Your task to perform on an android device: Look up the best rated headphones on Aliexpress Image 0: 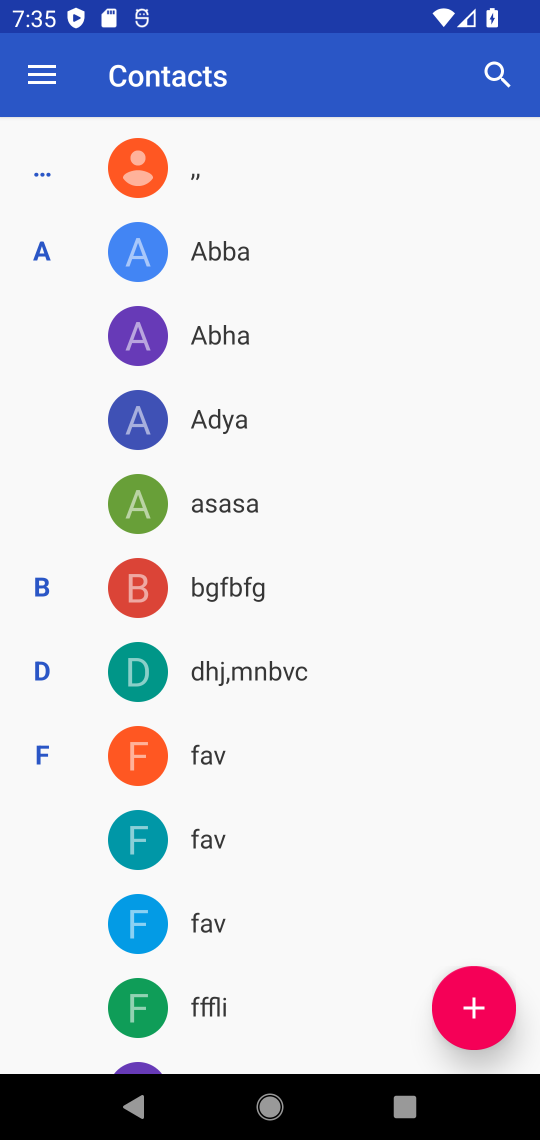
Step 0: press home button
Your task to perform on an android device: Look up the best rated headphones on Aliexpress Image 1: 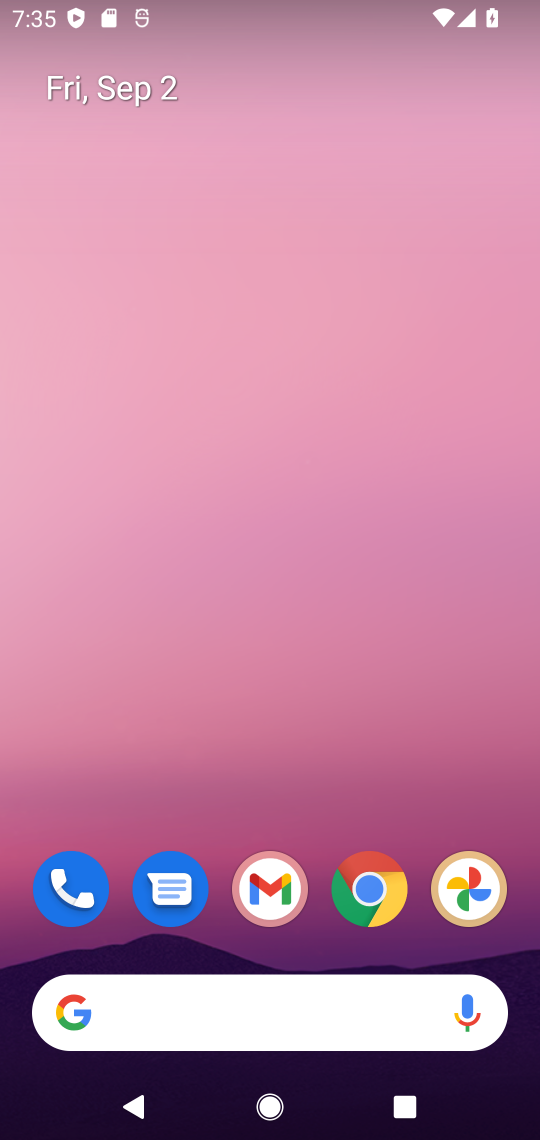
Step 1: click (279, 981)
Your task to perform on an android device: Look up the best rated headphones on Aliexpress Image 2: 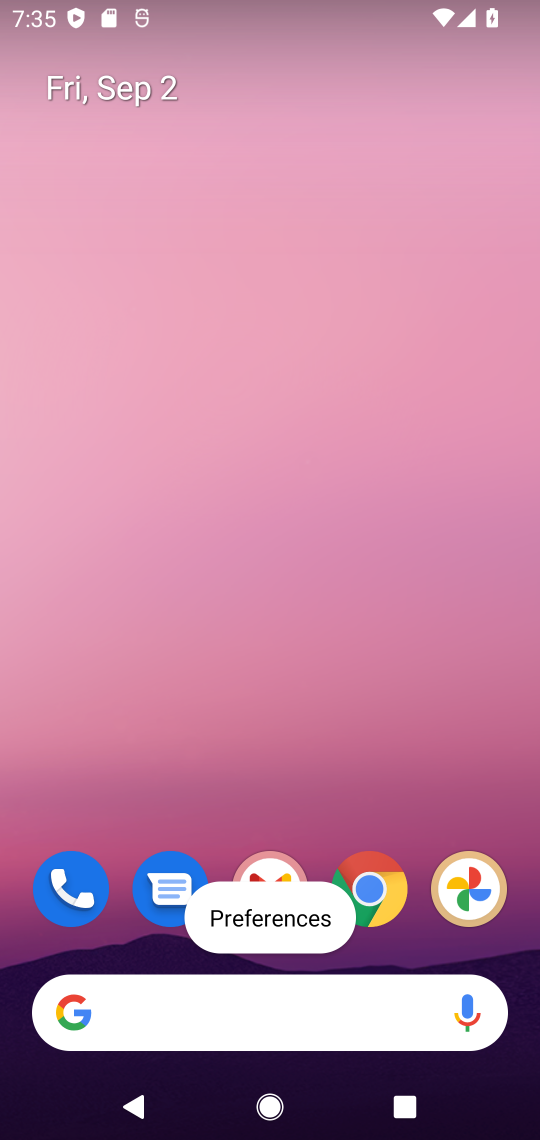
Step 2: click (246, 991)
Your task to perform on an android device: Look up the best rated headphones on Aliexpress Image 3: 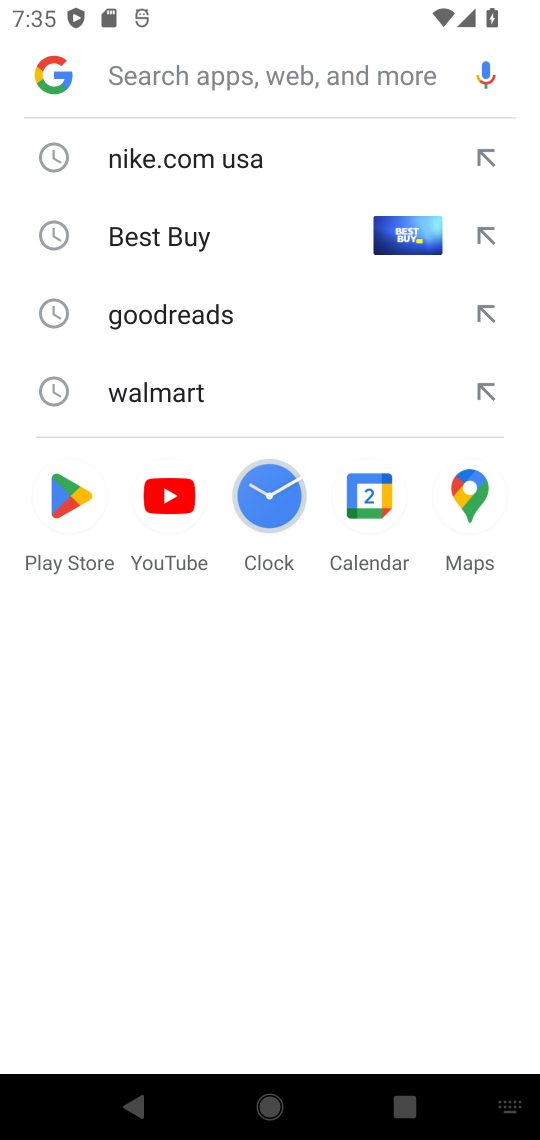
Step 3: click (244, 993)
Your task to perform on an android device: Look up the best rated headphones on Aliexpress Image 4: 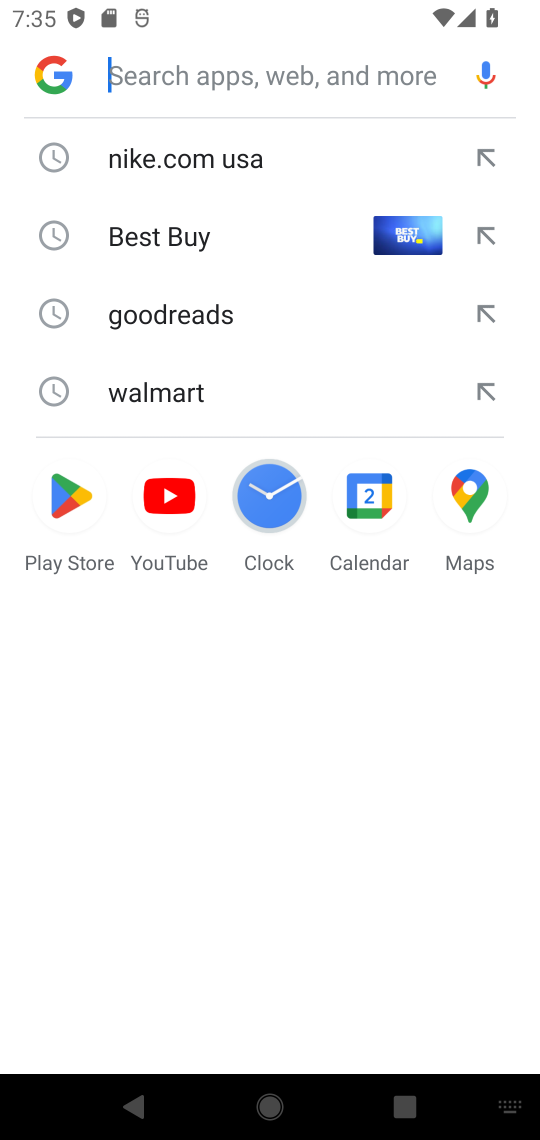
Step 4: type "Aliexpress"
Your task to perform on an android device: Look up the best rated headphones on Aliexpress Image 5: 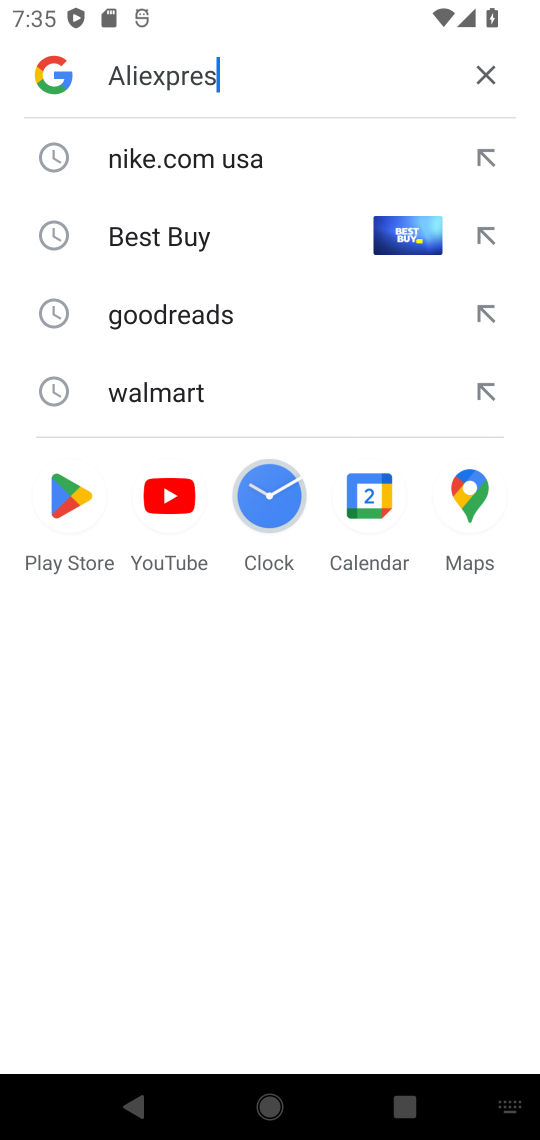
Step 5: type ""
Your task to perform on an android device: Look up the best rated headphones on Aliexpress Image 6: 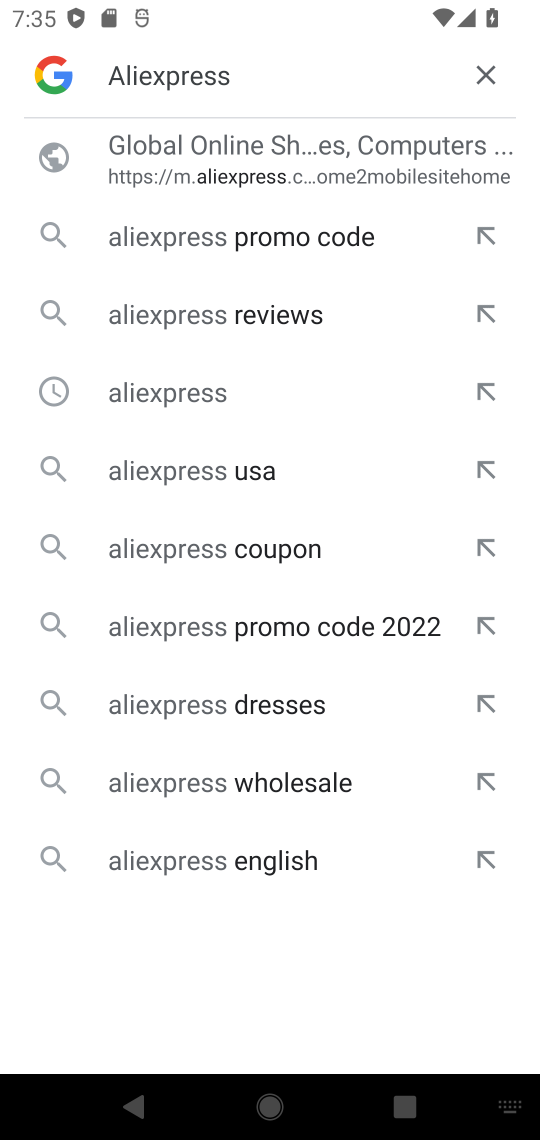
Step 6: click (105, 390)
Your task to perform on an android device: Look up the best rated headphones on Aliexpress Image 7: 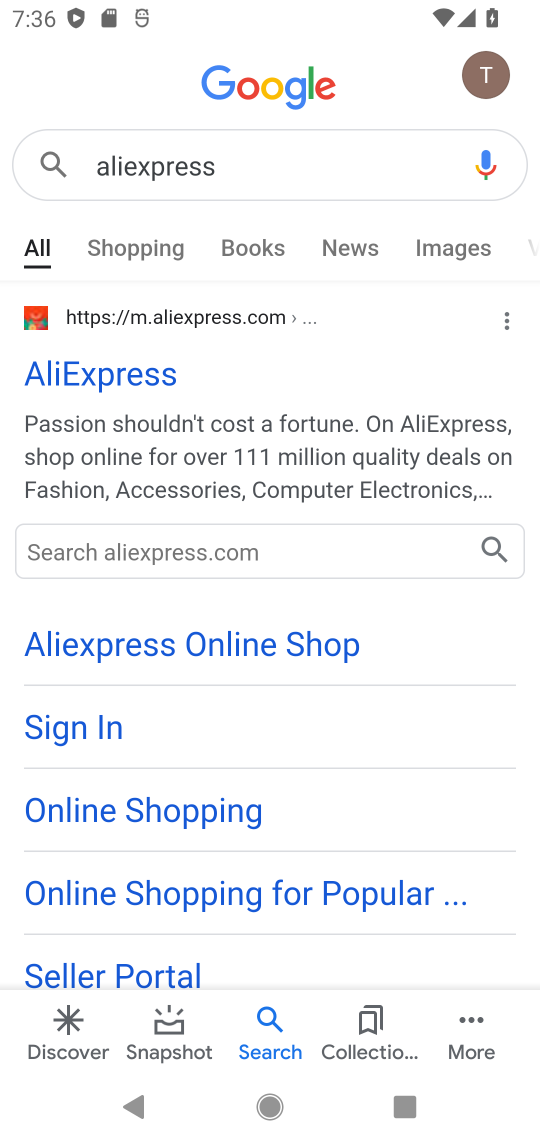
Step 7: click (116, 393)
Your task to perform on an android device: Look up the best rated headphones on Aliexpress Image 8: 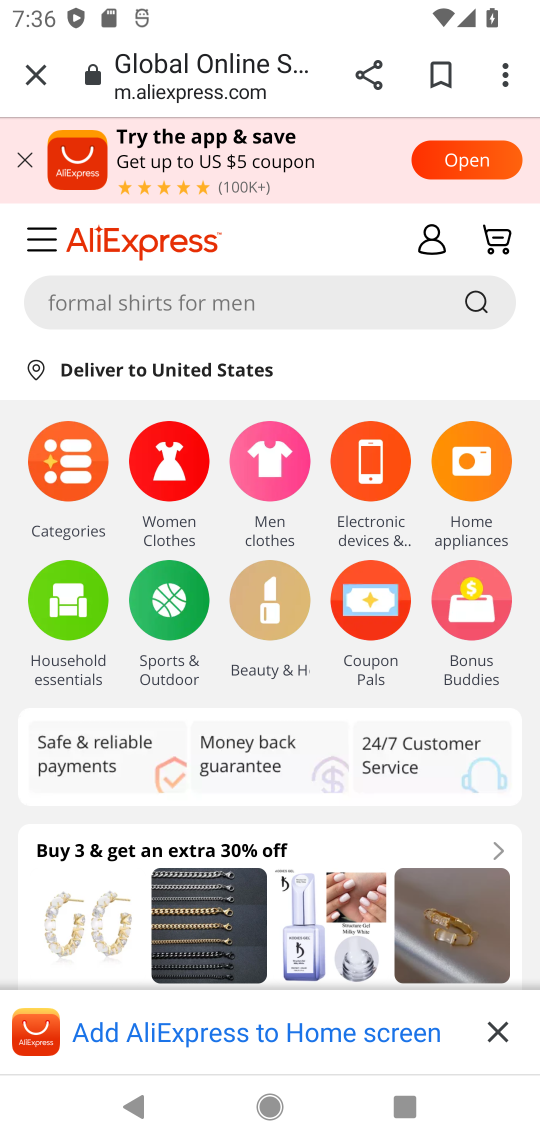
Step 8: click (273, 292)
Your task to perform on an android device: Look up the best rated headphones on Aliexpress Image 9: 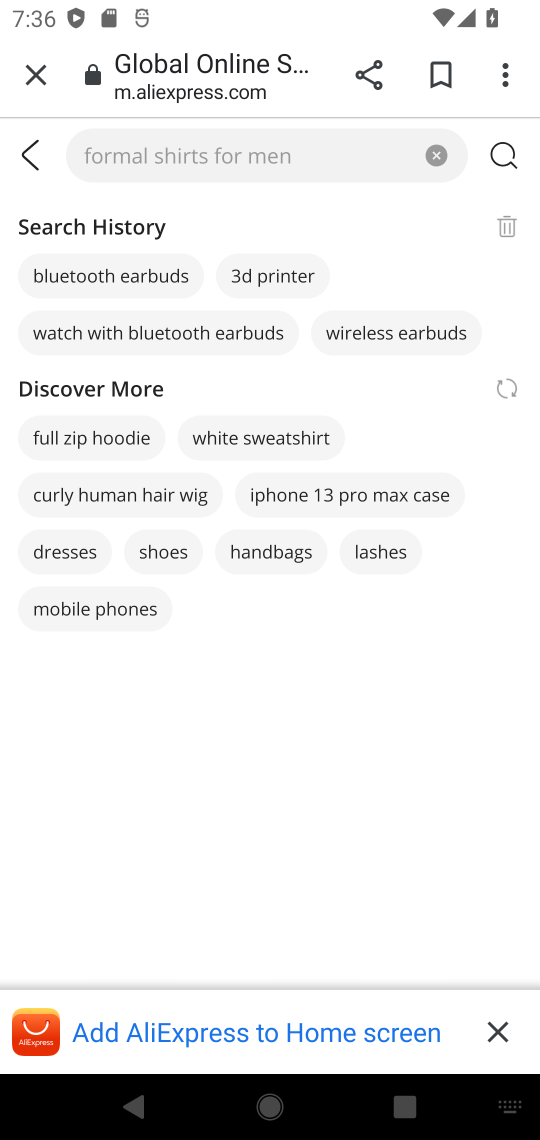
Step 9: type "headphone"
Your task to perform on an android device: Look up the best rated headphones on Aliexpress Image 10: 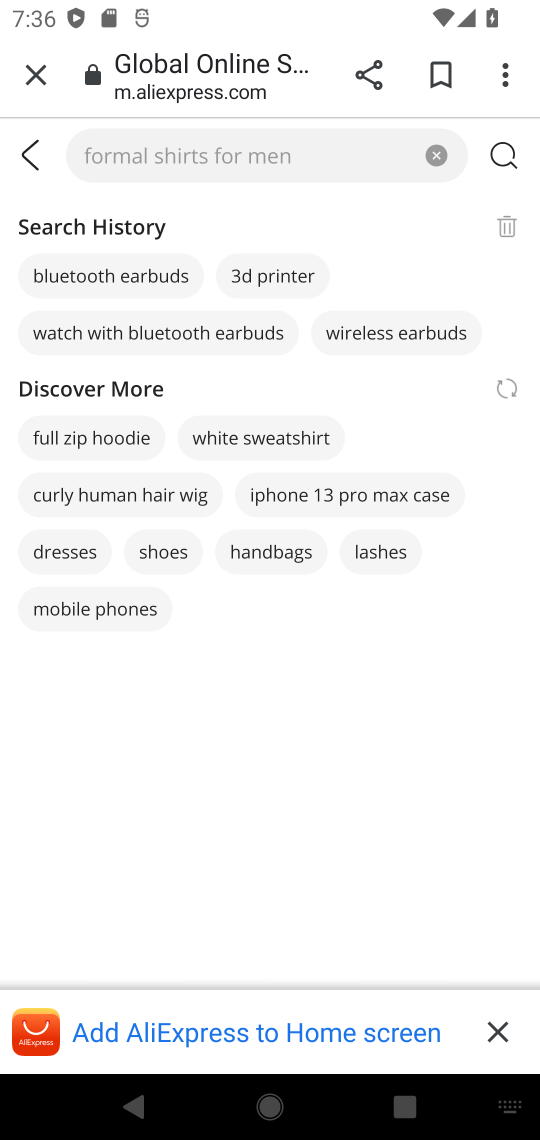
Step 10: type ""
Your task to perform on an android device: Look up the best rated headphones on Aliexpress Image 11: 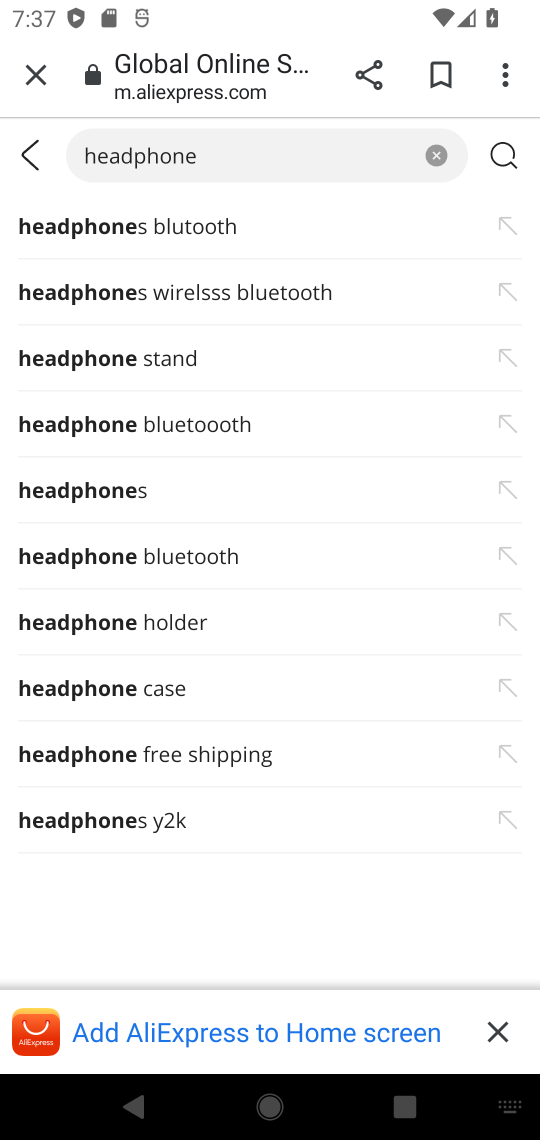
Step 11: click (212, 479)
Your task to perform on an android device: Look up the best rated headphones on Aliexpress Image 12: 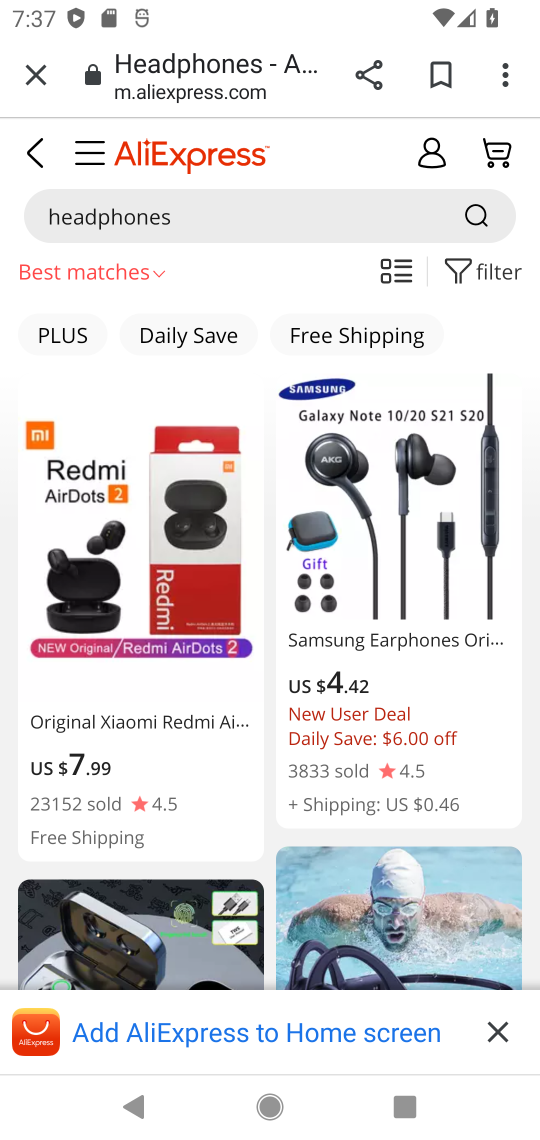
Step 12: task complete